Your task to perform on an android device: uninstall "Pluto TV - Live TV and Movies" Image 0: 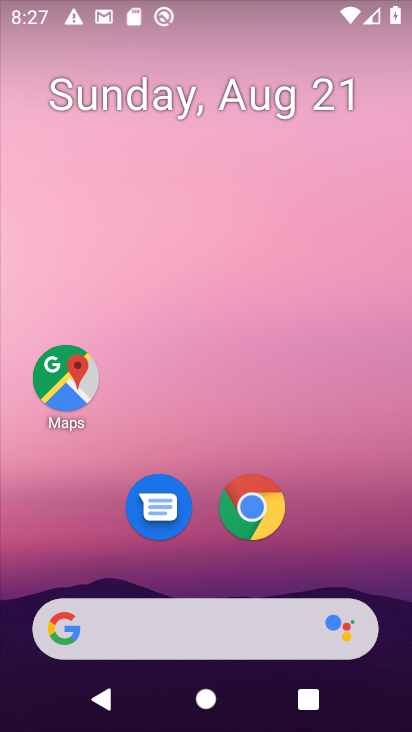
Step 0: drag from (200, 563) to (188, 330)
Your task to perform on an android device: uninstall "Pluto TV - Live TV and Movies" Image 1: 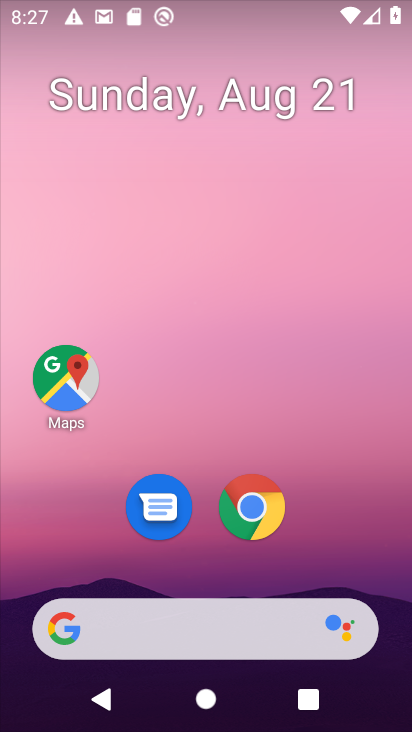
Step 1: drag from (203, 492) to (204, 70)
Your task to perform on an android device: uninstall "Pluto TV - Live TV and Movies" Image 2: 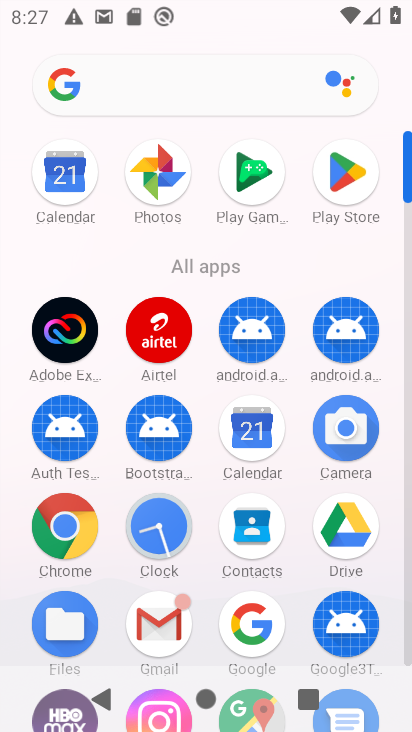
Step 2: click (344, 182)
Your task to perform on an android device: uninstall "Pluto TV - Live TV and Movies" Image 3: 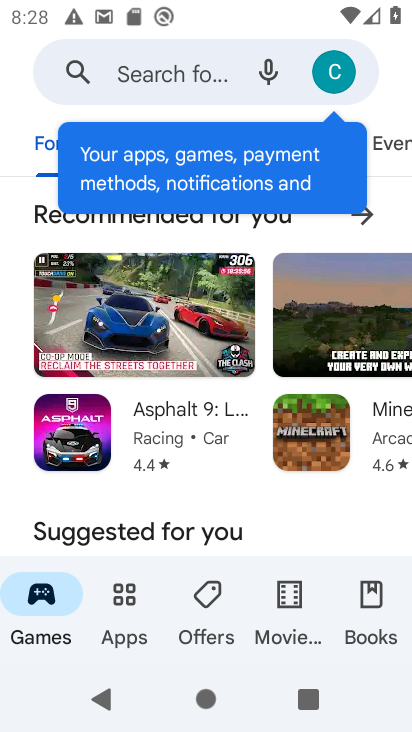
Step 3: click (170, 73)
Your task to perform on an android device: uninstall "Pluto TV - Live TV and Movies" Image 4: 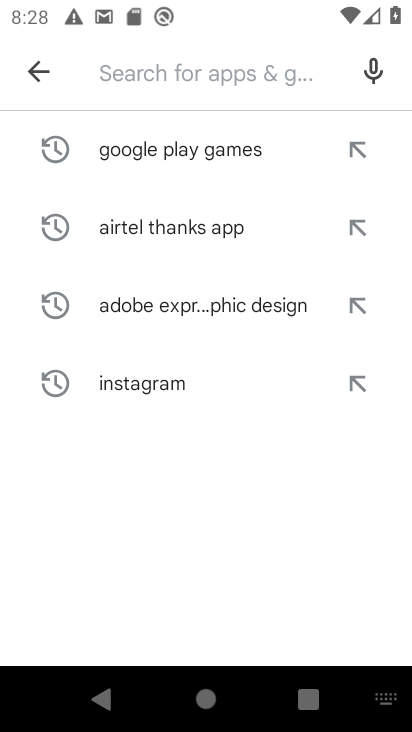
Step 4: click (170, 73)
Your task to perform on an android device: uninstall "Pluto TV - Live TV and Movies" Image 5: 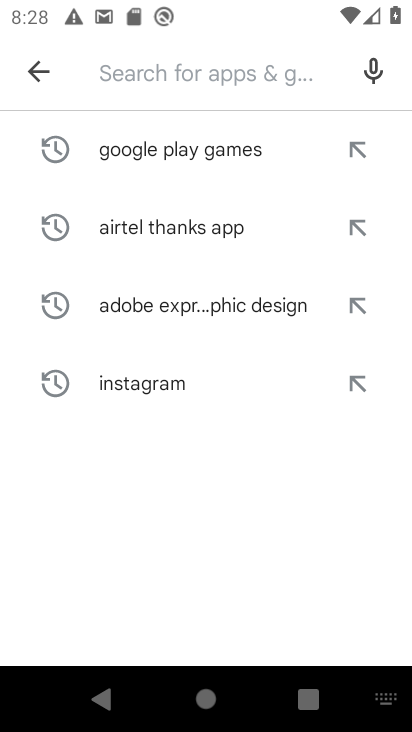
Step 5: type "Pluto TV "
Your task to perform on an android device: uninstall "Pluto TV - Live TV and Movies" Image 6: 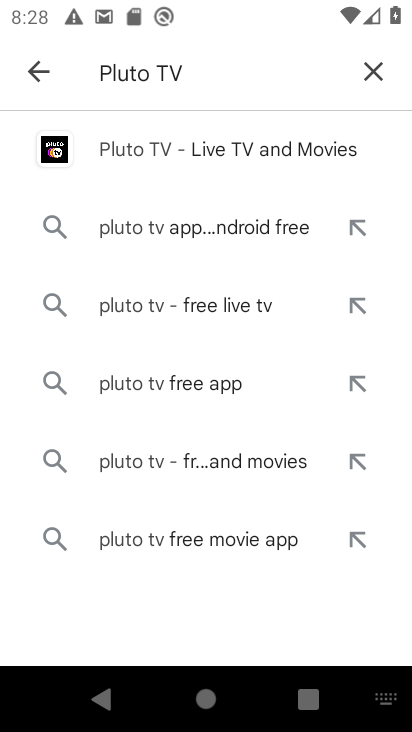
Step 6: click (272, 157)
Your task to perform on an android device: uninstall "Pluto TV - Live TV and Movies" Image 7: 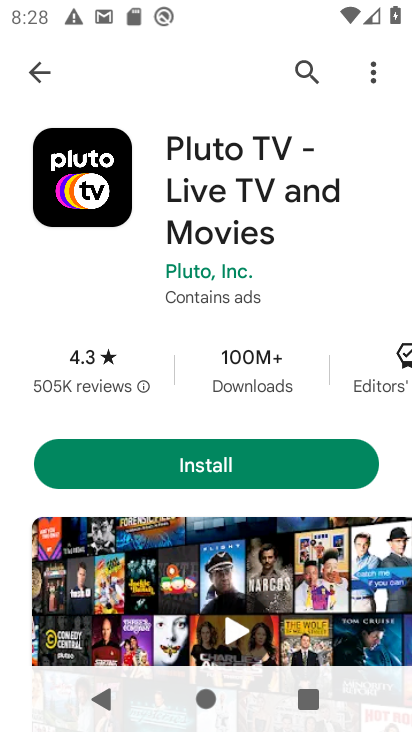
Step 7: task complete